Your task to perform on an android device: change the upload size in google photos Image 0: 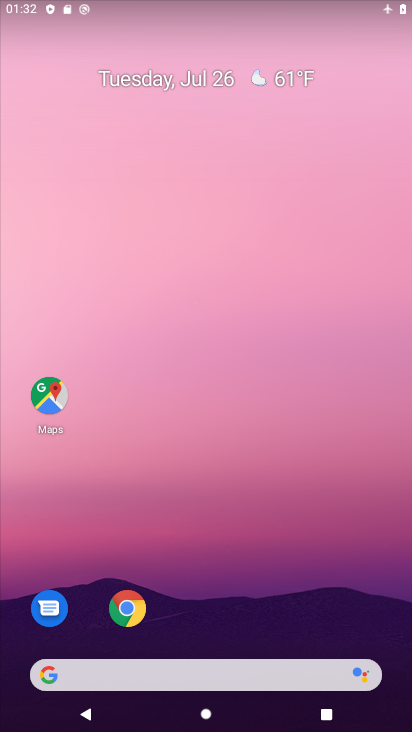
Step 0: drag from (24, 716) to (225, 42)
Your task to perform on an android device: change the upload size in google photos Image 1: 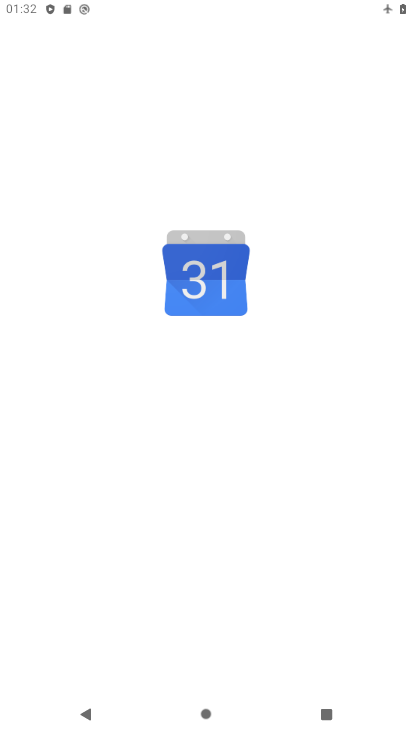
Step 1: drag from (75, 574) to (253, 130)
Your task to perform on an android device: change the upload size in google photos Image 2: 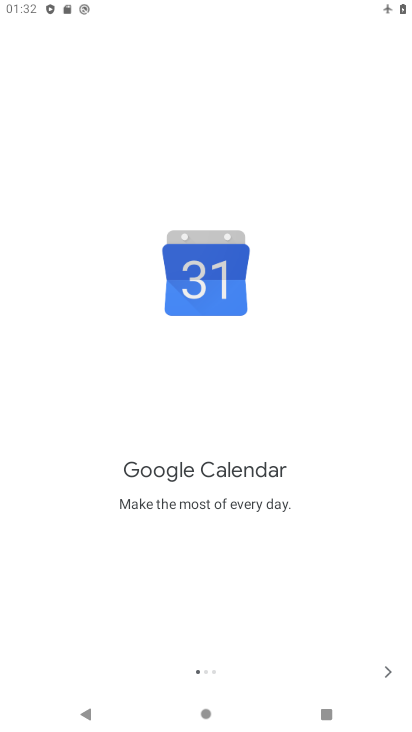
Step 2: press back button
Your task to perform on an android device: change the upload size in google photos Image 3: 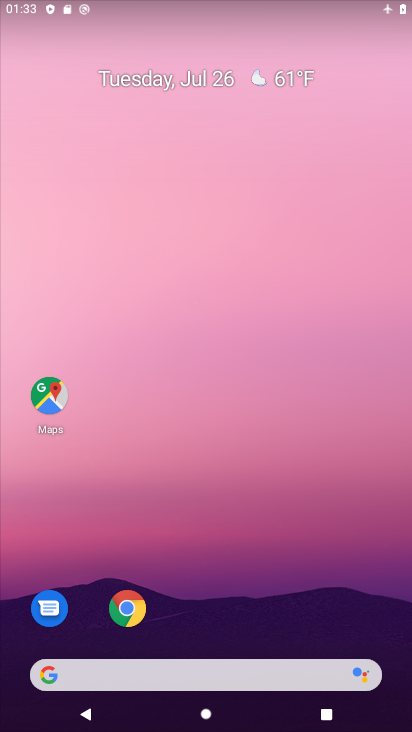
Step 3: drag from (7, 458) to (275, 46)
Your task to perform on an android device: change the upload size in google photos Image 4: 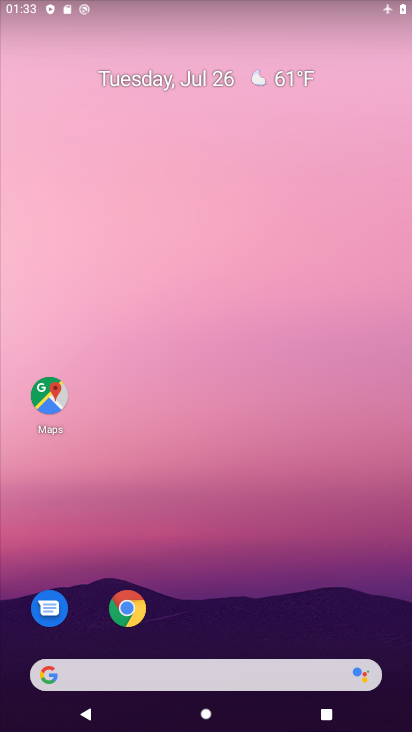
Step 4: drag from (28, 652) to (245, 70)
Your task to perform on an android device: change the upload size in google photos Image 5: 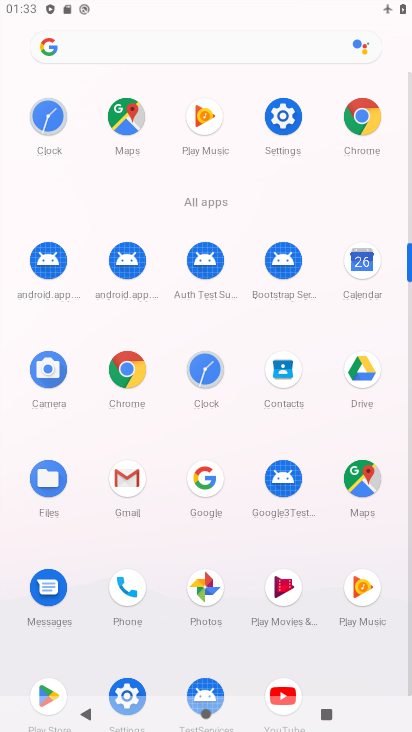
Step 5: click (203, 586)
Your task to perform on an android device: change the upload size in google photos Image 6: 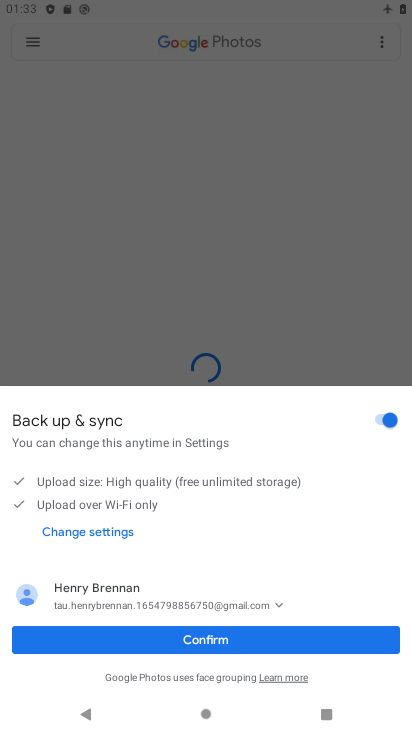
Step 6: click (269, 634)
Your task to perform on an android device: change the upload size in google photos Image 7: 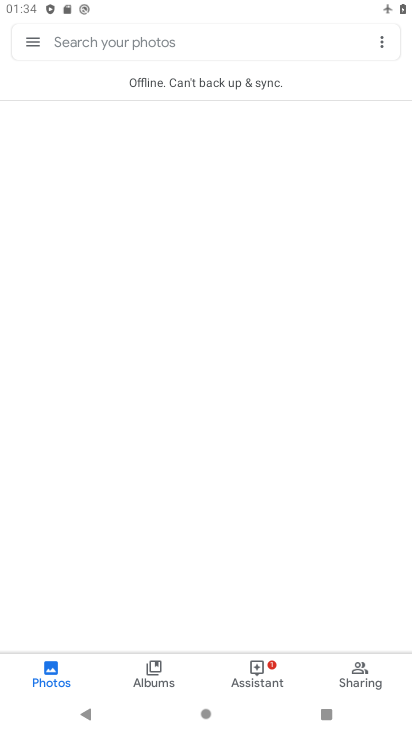
Step 7: task complete